Your task to perform on an android device: set default search engine in the chrome app Image 0: 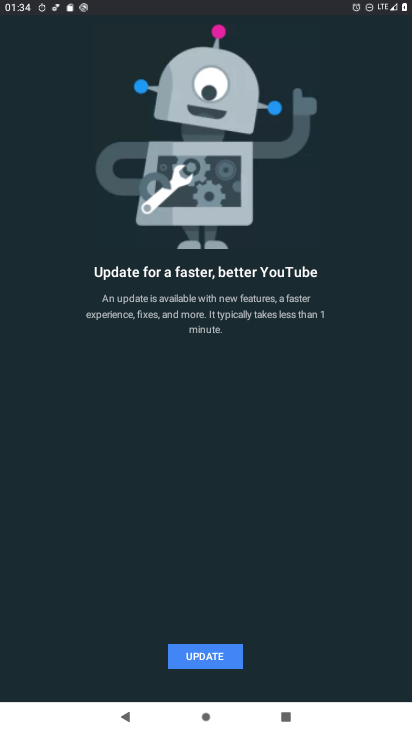
Step 0: press home button
Your task to perform on an android device: set default search engine in the chrome app Image 1: 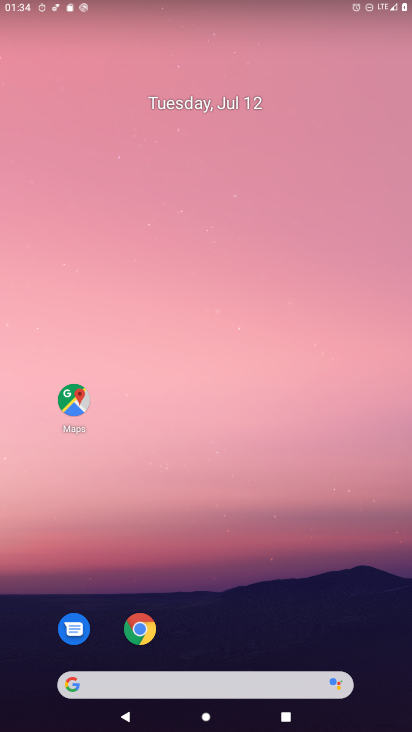
Step 1: drag from (38, 704) to (258, 4)
Your task to perform on an android device: set default search engine in the chrome app Image 2: 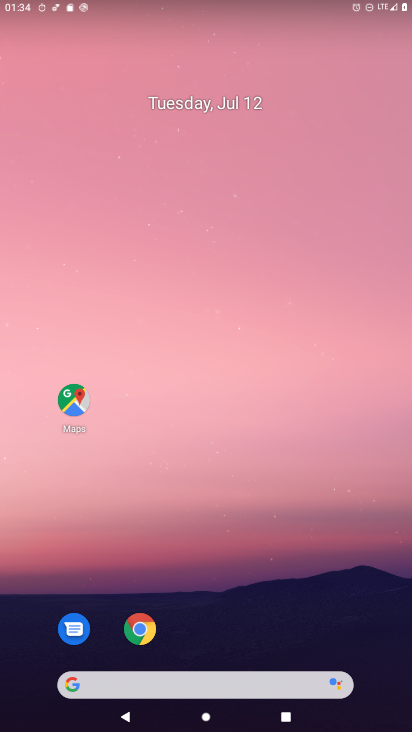
Step 2: click (145, 639)
Your task to perform on an android device: set default search engine in the chrome app Image 3: 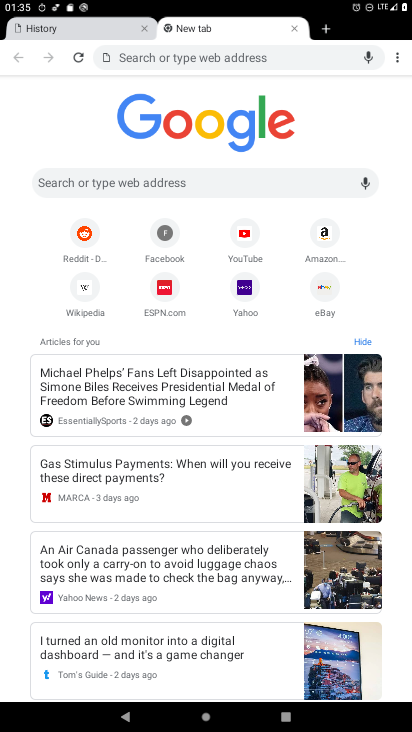
Step 3: click (392, 56)
Your task to perform on an android device: set default search engine in the chrome app Image 4: 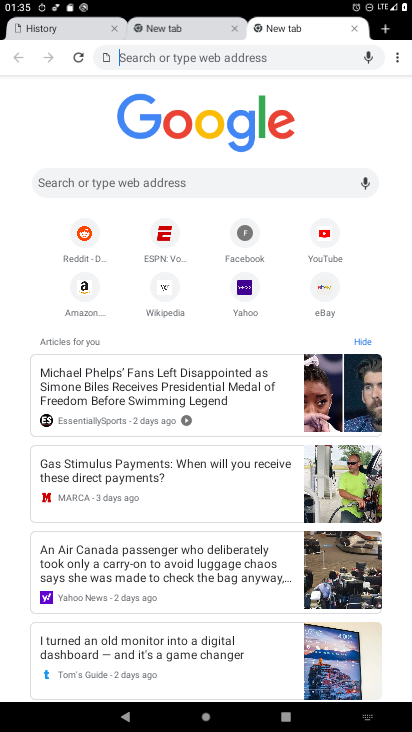
Step 4: click (397, 57)
Your task to perform on an android device: set default search engine in the chrome app Image 5: 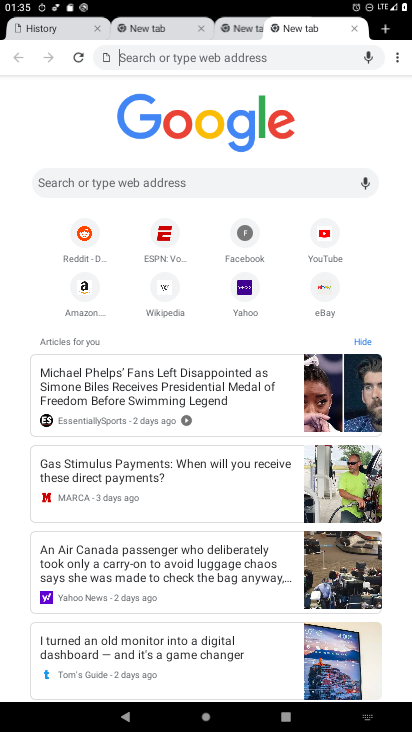
Step 5: click (397, 57)
Your task to perform on an android device: set default search engine in the chrome app Image 6: 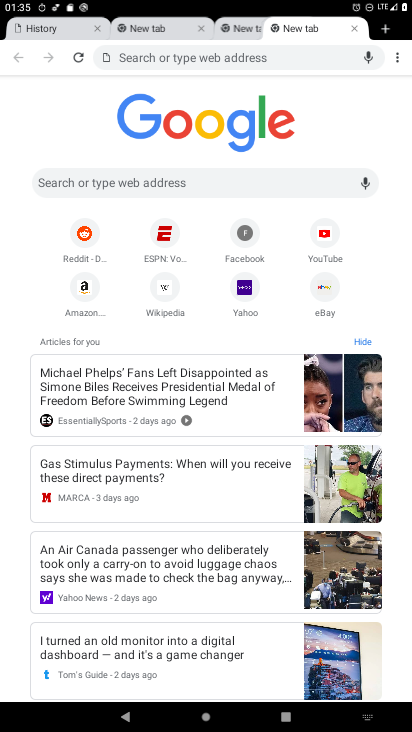
Step 6: task complete